Your task to perform on an android device: create a new album in the google photos Image 0: 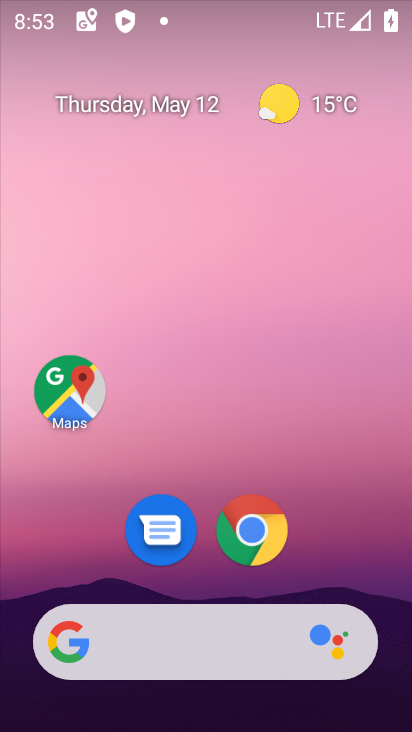
Step 0: drag from (225, 699) to (258, 161)
Your task to perform on an android device: create a new album in the google photos Image 1: 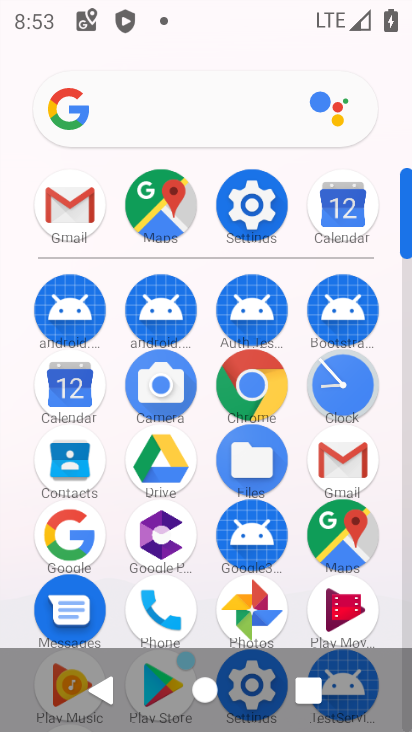
Step 1: click (260, 604)
Your task to perform on an android device: create a new album in the google photos Image 2: 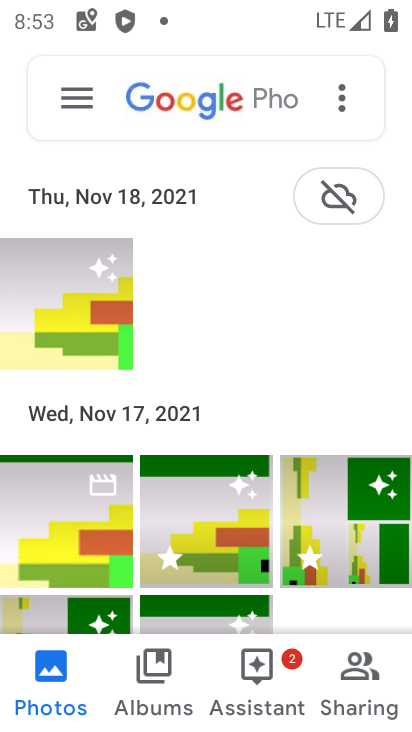
Step 2: drag from (74, 298) to (88, 329)
Your task to perform on an android device: create a new album in the google photos Image 3: 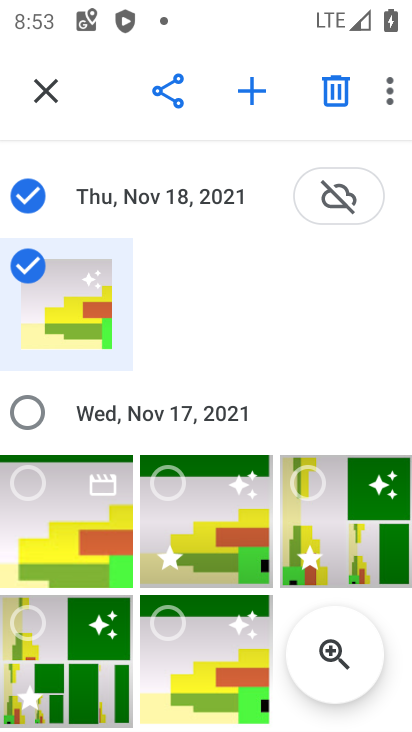
Step 3: click (260, 94)
Your task to perform on an android device: create a new album in the google photos Image 4: 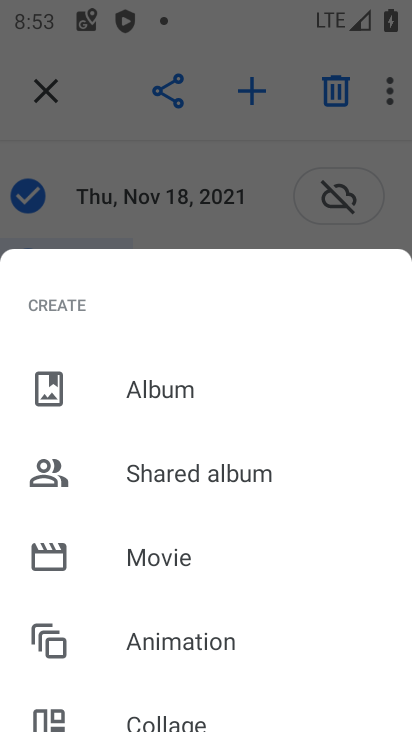
Step 4: click (208, 382)
Your task to perform on an android device: create a new album in the google photos Image 5: 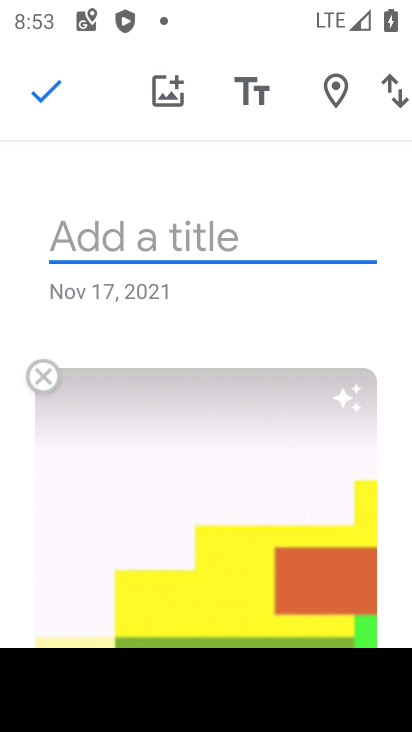
Step 5: type "kjn"
Your task to perform on an android device: create a new album in the google photos Image 6: 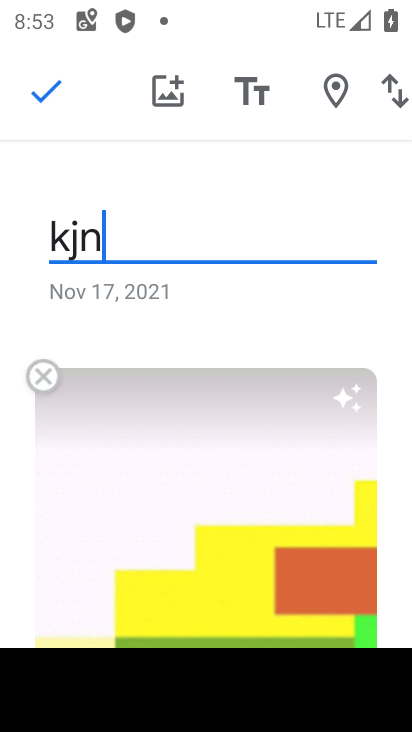
Step 6: click (48, 89)
Your task to perform on an android device: create a new album in the google photos Image 7: 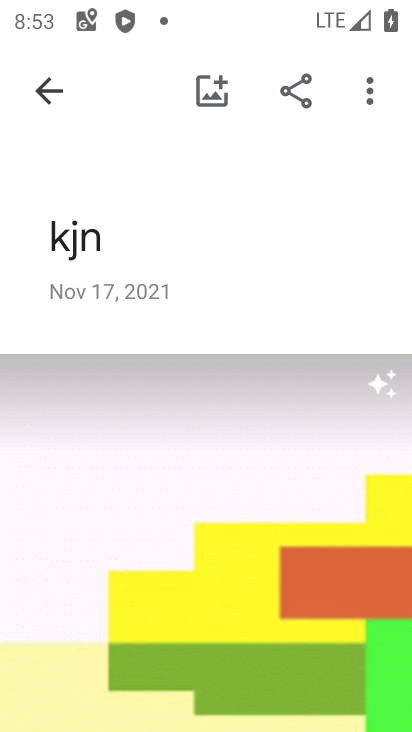
Step 7: task complete